Your task to perform on an android device: Open Yahoo.com Image 0: 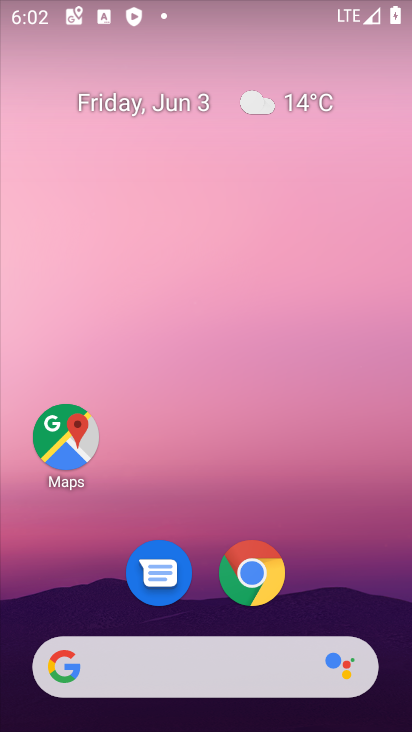
Step 0: drag from (188, 650) to (195, 57)
Your task to perform on an android device: Open Yahoo.com Image 1: 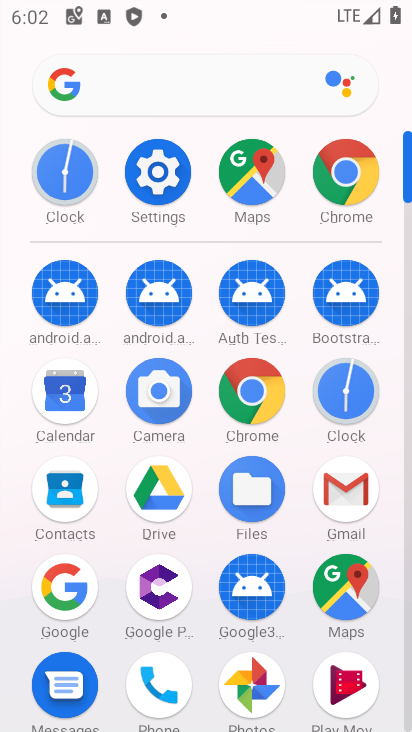
Step 1: click (263, 399)
Your task to perform on an android device: Open Yahoo.com Image 2: 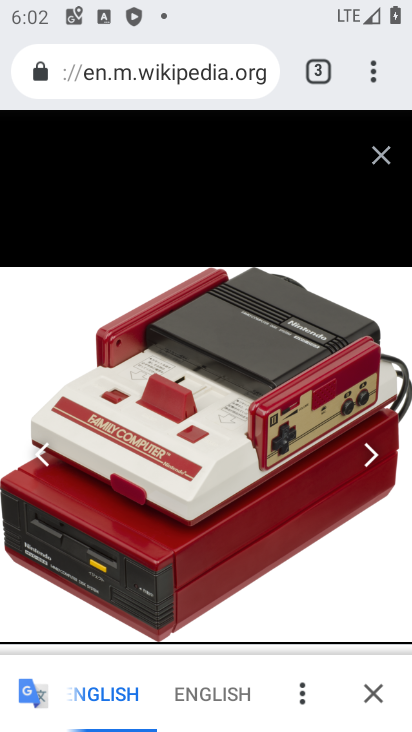
Step 2: drag from (371, 72) to (226, 133)
Your task to perform on an android device: Open Yahoo.com Image 3: 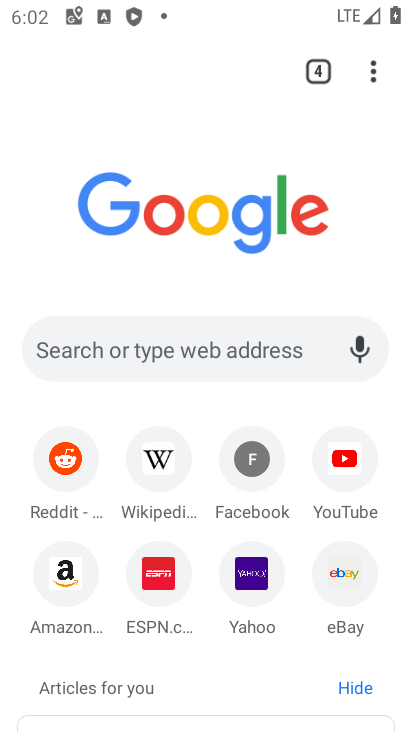
Step 3: click (258, 592)
Your task to perform on an android device: Open Yahoo.com Image 4: 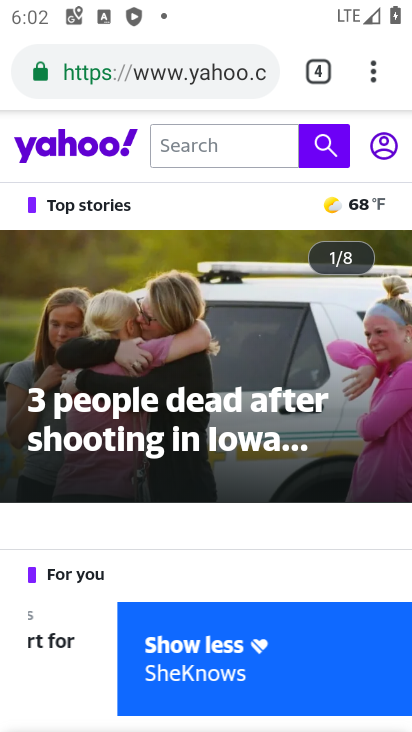
Step 4: task complete